Your task to perform on an android device: What's the weather today? Image 0: 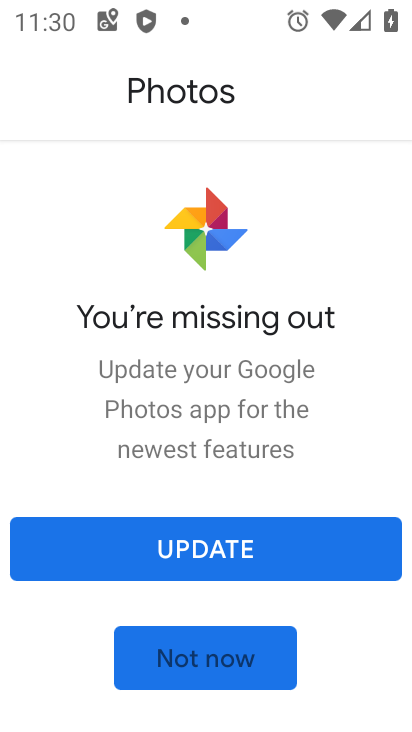
Step 0: press home button
Your task to perform on an android device: What's the weather today? Image 1: 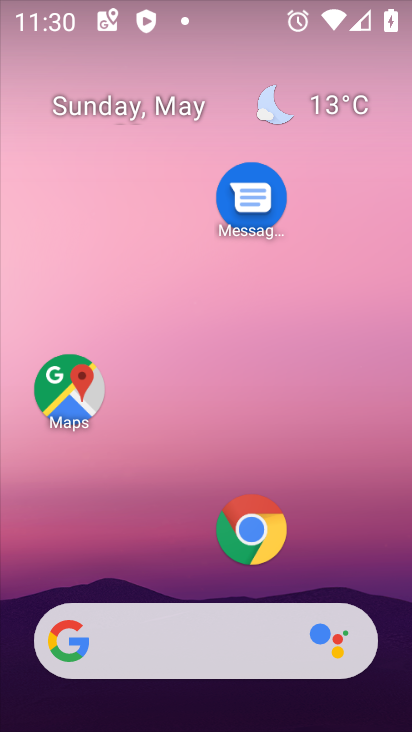
Step 1: click (351, 103)
Your task to perform on an android device: What's the weather today? Image 2: 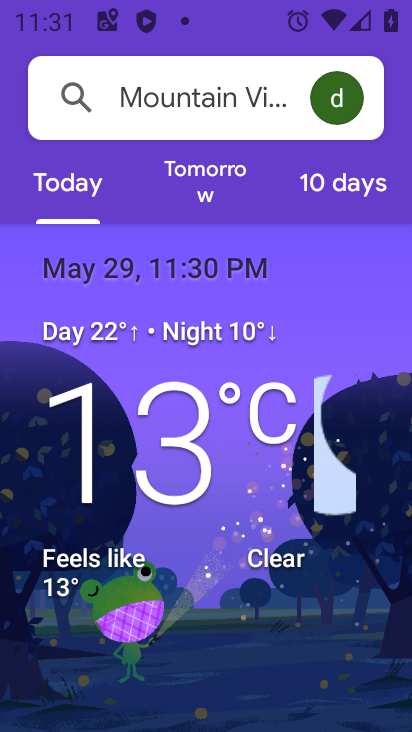
Step 2: task complete